Your task to perform on an android device: move a message to another label in the gmail app Image 0: 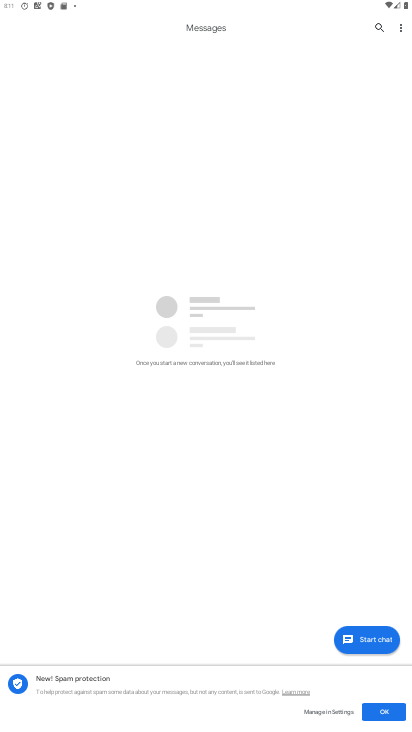
Step 0: drag from (227, 520) to (289, 258)
Your task to perform on an android device: move a message to another label in the gmail app Image 1: 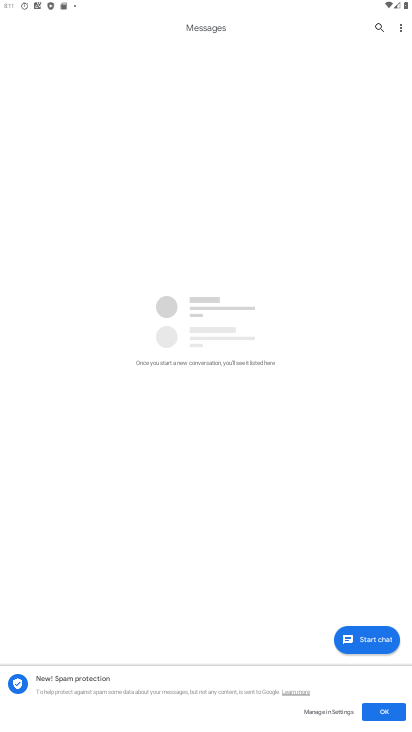
Step 1: drag from (245, 555) to (299, 365)
Your task to perform on an android device: move a message to another label in the gmail app Image 2: 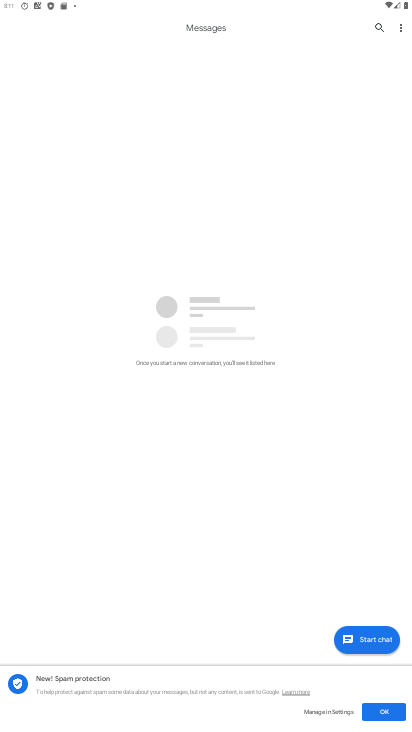
Step 2: press home button
Your task to perform on an android device: move a message to another label in the gmail app Image 3: 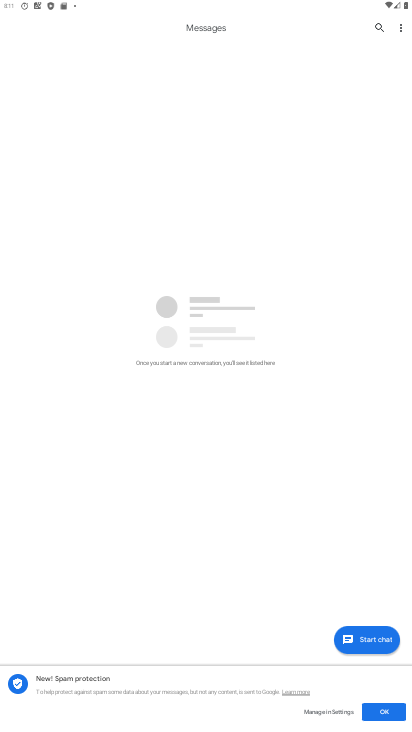
Step 3: press home button
Your task to perform on an android device: move a message to another label in the gmail app Image 4: 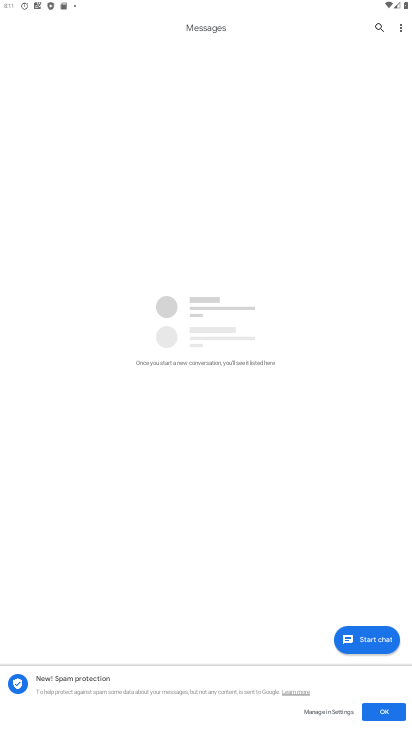
Step 4: drag from (207, 581) to (247, 178)
Your task to perform on an android device: move a message to another label in the gmail app Image 5: 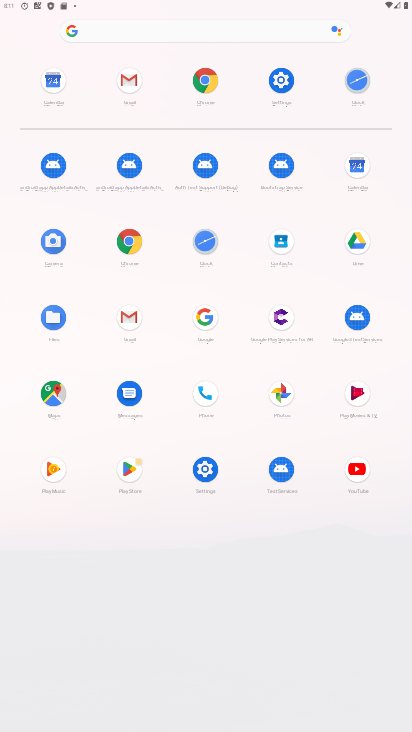
Step 5: click (130, 312)
Your task to perform on an android device: move a message to another label in the gmail app Image 6: 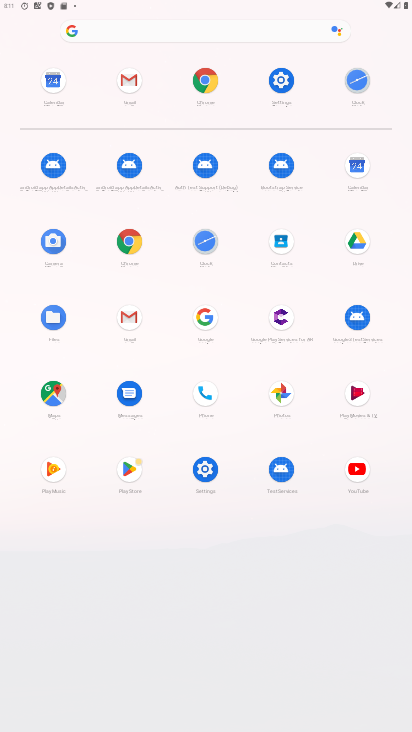
Step 6: click (130, 312)
Your task to perform on an android device: move a message to another label in the gmail app Image 7: 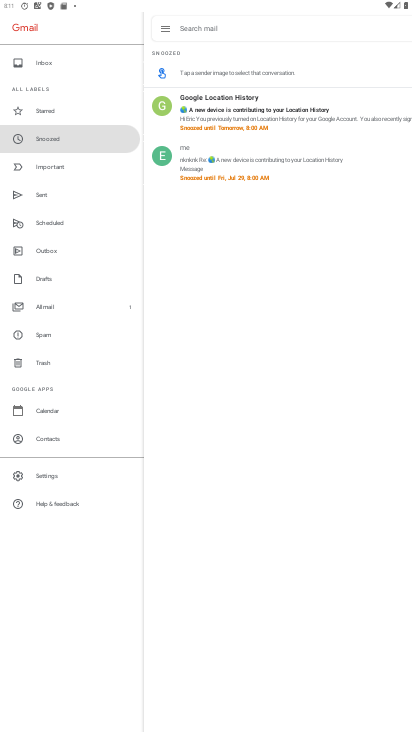
Step 7: drag from (84, 375) to (91, 291)
Your task to perform on an android device: move a message to another label in the gmail app Image 8: 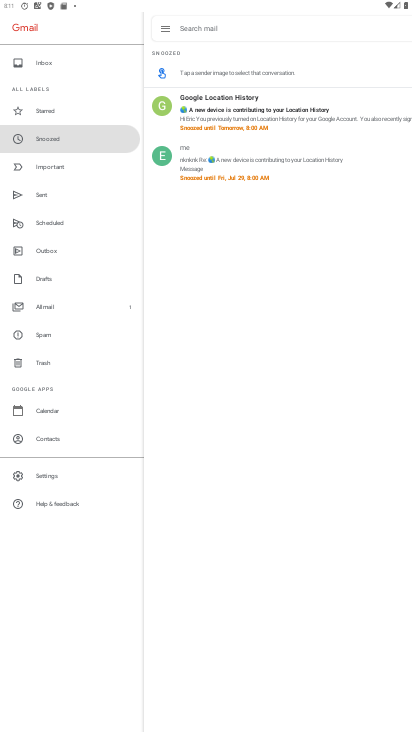
Step 8: drag from (69, 471) to (69, 285)
Your task to perform on an android device: move a message to another label in the gmail app Image 9: 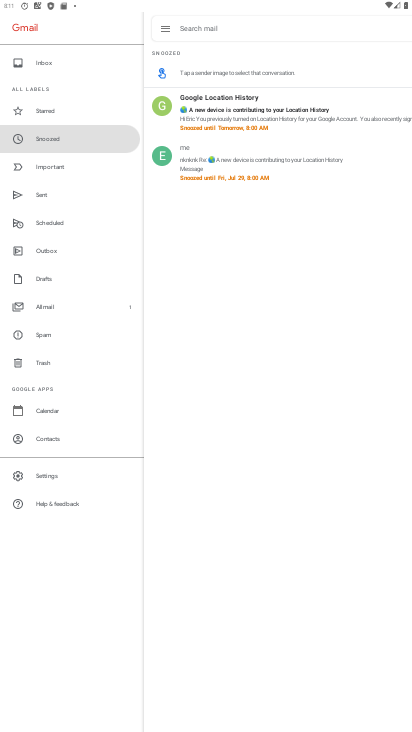
Step 9: drag from (79, 70) to (87, 443)
Your task to perform on an android device: move a message to another label in the gmail app Image 10: 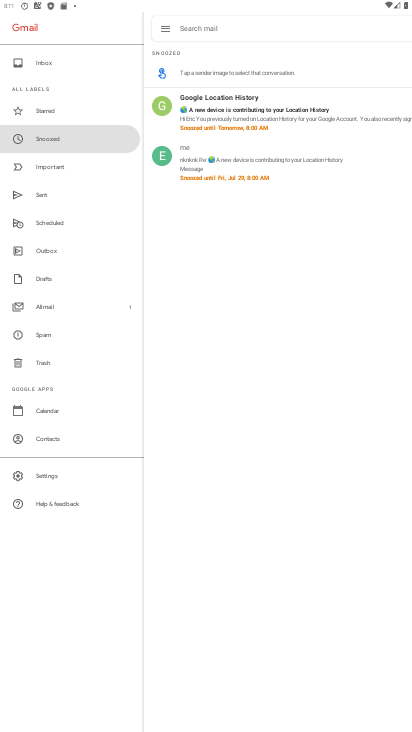
Step 10: drag from (68, 427) to (71, 300)
Your task to perform on an android device: move a message to another label in the gmail app Image 11: 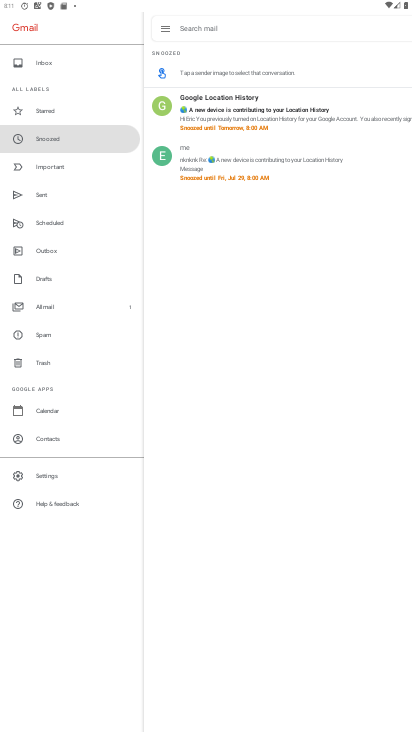
Step 11: drag from (70, 441) to (101, 322)
Your task to perform on an android device: move a message to another label in the gmail app Image 12: 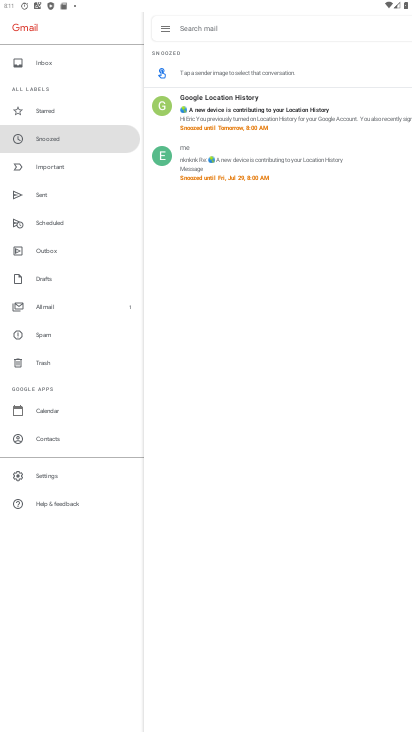
Step 12: drag from (87, 461) to (114, 107)
Your task to perform on an android device: move a message to another label in the gmail app Image 13: 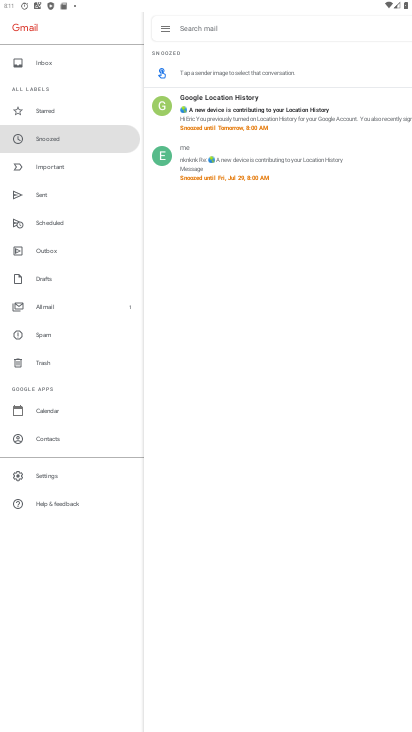
Step 13: drag from (88, 509) to (86, 330)
Your task to perform on an android device: move a message to another label in the gmail app Image 14: 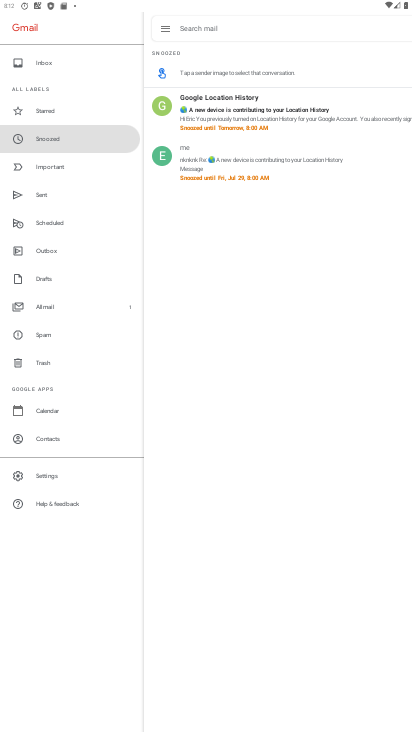
Step 14: drag from (81, 415) to (79, 303)
Your task to perform on an android device: move a message to another label in the gmail app Image 15: 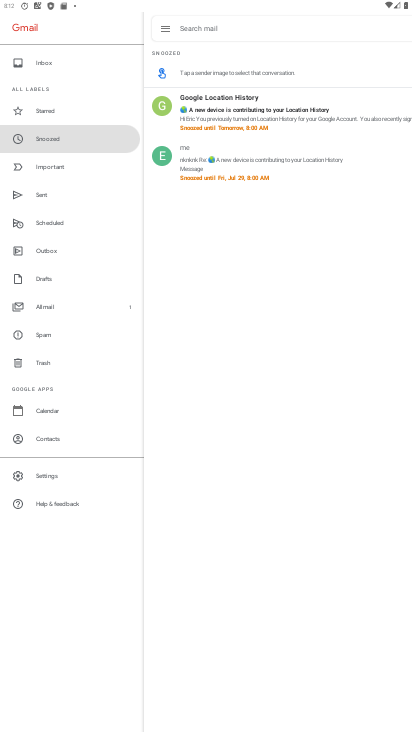
Step 15: click (41, 59)
Your task to perform on an android device: move a message to another label in the gmail app Image 16: 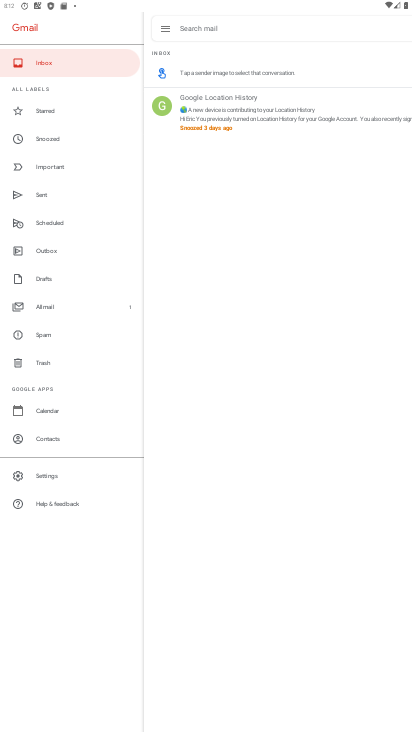
Step 16: drag from (275, 401) to (274, 210)
Your task to perform on an android device: move a message to another label in the gmail app Image 17: 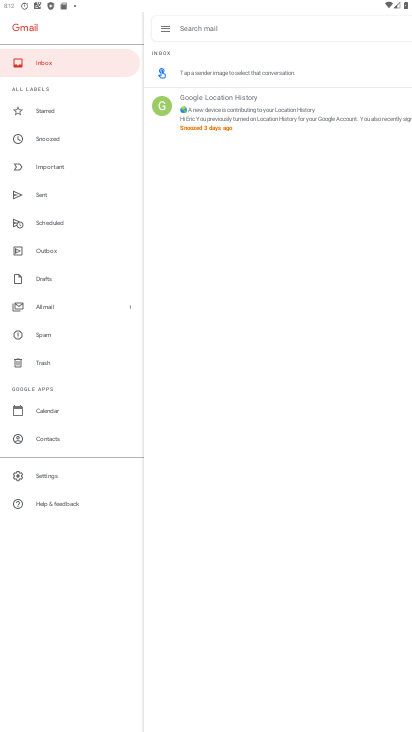
Step 17: drag from (245, 244) to (248, 657)
Your task to perform on an android device: move a message to another label in the gmail app Image 18: 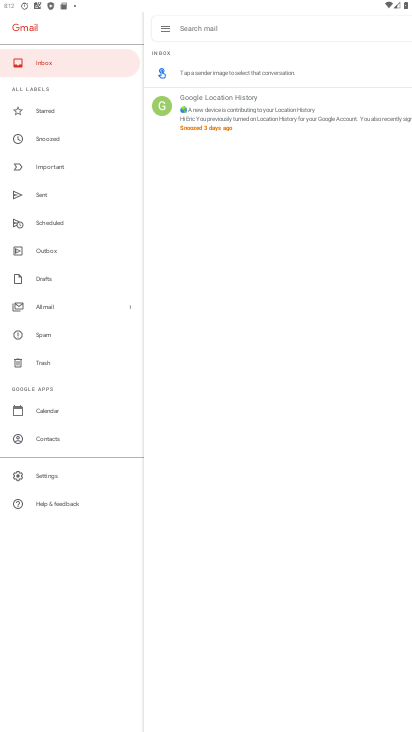
Step 18: click (273, 362)
Your task to perform on an android device: move a message to another label in the gmail app Image 19: 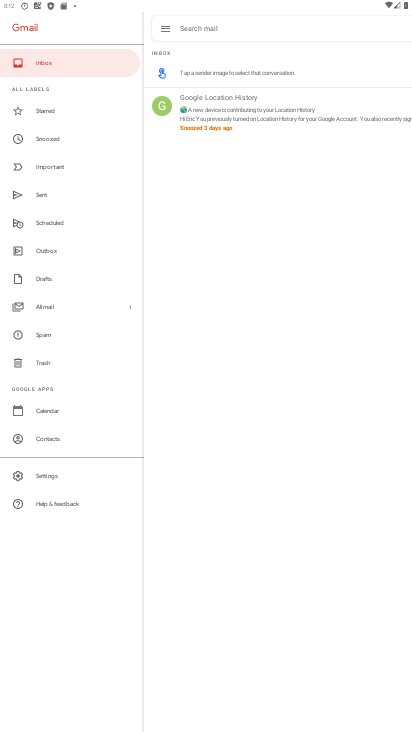
Step 19: task complete